Your task to perform on an android device: Go to network settings Image 0: 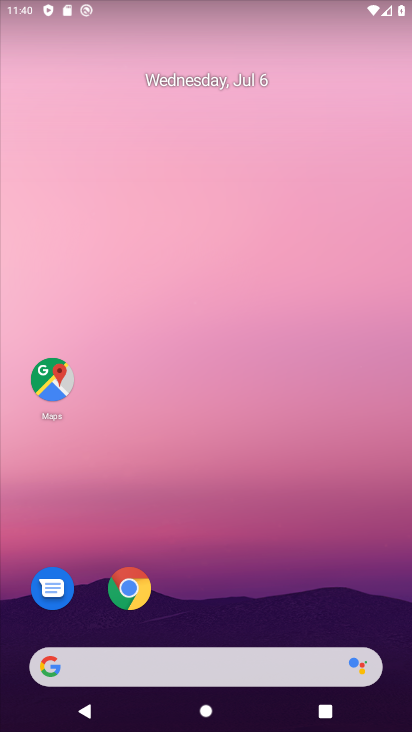
Step 0: drag from (140, 611) to (253, 12)
Your task to perform on an android device: Go to network settings Image 1: 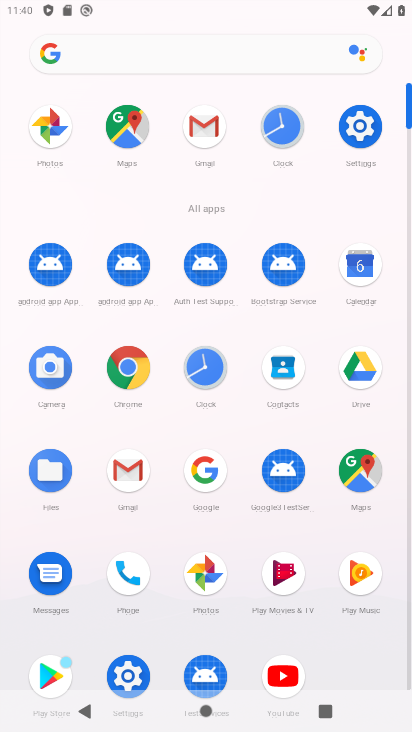
Step 1: click (116, 680)
Your task to perform on an android device: Go to network settings Image 2: 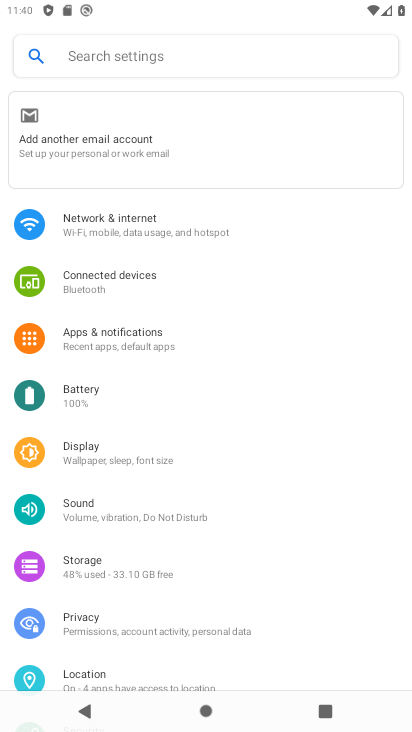
Step 2: click (179, 216)
Your task to perform on an android device: Go to network settings Image 3: 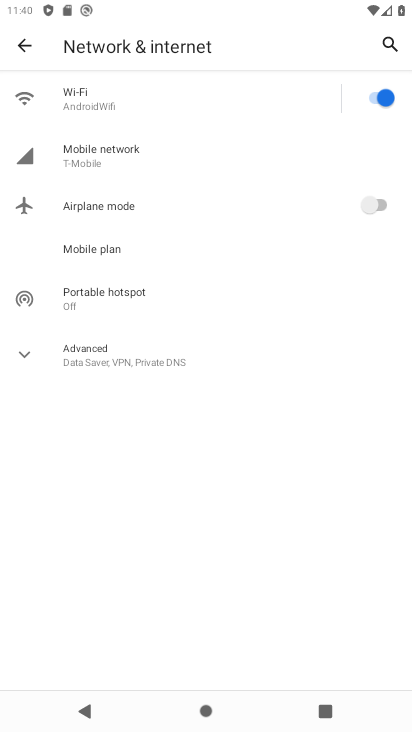
Step 3: click (134, 157)
Your task to perform on an android device: Go to network settings Image 4: 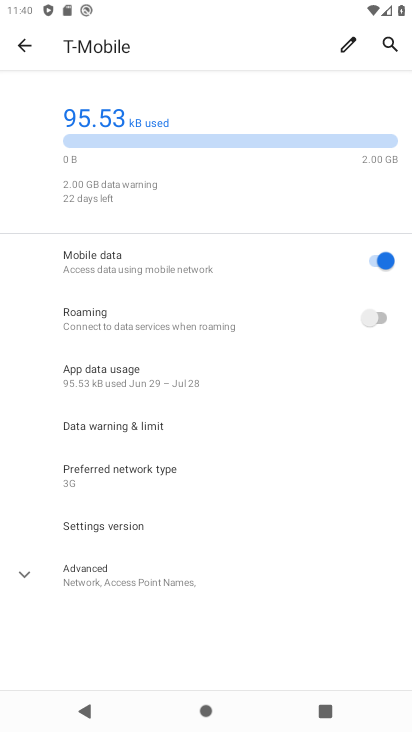
Step 4: task complete